Your task to perform on an android device: uninstall "Adobe Acrobat Reader" Image 0: 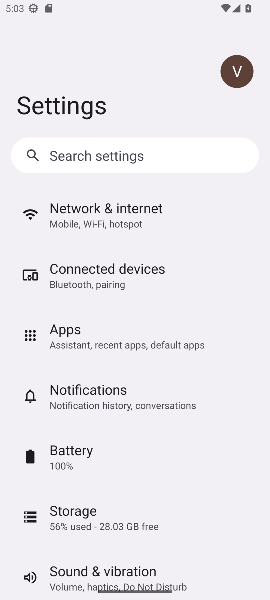
Step 0: press home button
Your task to perform on an android device: uninstall "Adobe Acrobat Reader" Image 1: 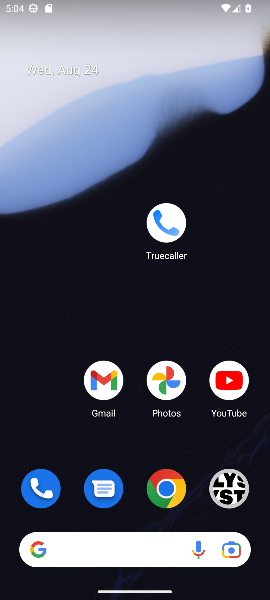
Step 1: drag from (137, 511) to (135, 181)
Your task to perform on an android device: uninstall "Adobe Acrobat Reader" Image 2: 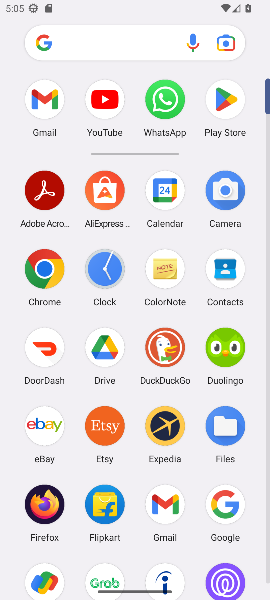
Step 2: click (241, 109)
Your task to perform on an android device: uninstall "Adobe Acrobat Reader" Image 3: 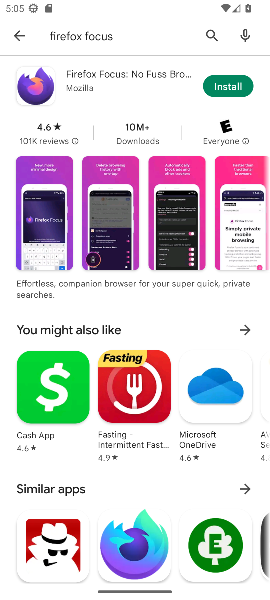
Step 3: task complete